Your task to perform on an android device: Do I have any events this weekend? Image 0: 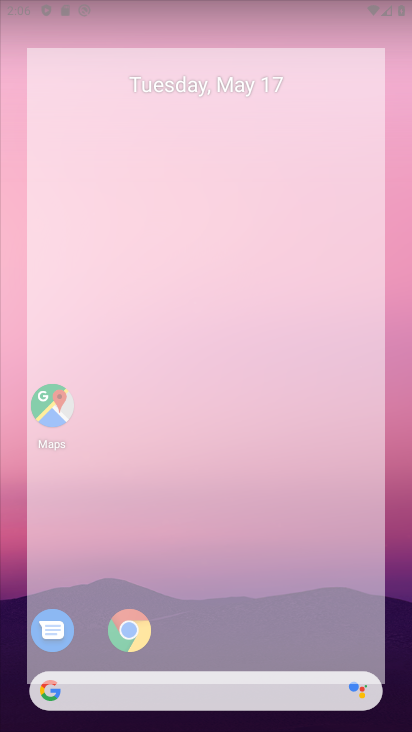
Step 0: drag from (359, 727) to (225, 117)
Your task to perform on an android device: Do I have any events this weekend? Image 1: 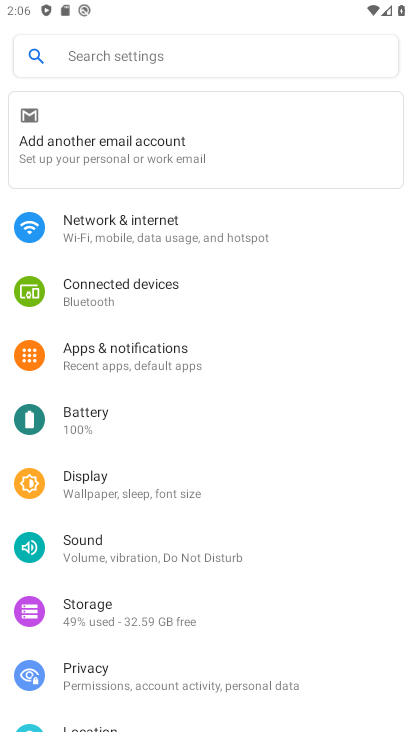
Step 1: press home button
Your task to perform on an android device: Do I have any events this weekend? Image 2: 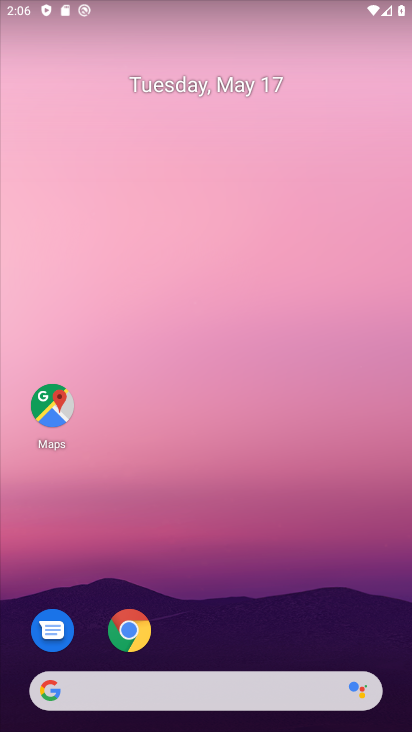
Step 2: drag from (286, 431) to (227, 164)
Your task to perform on an android device: Do I have any events this weekend? Image 3: 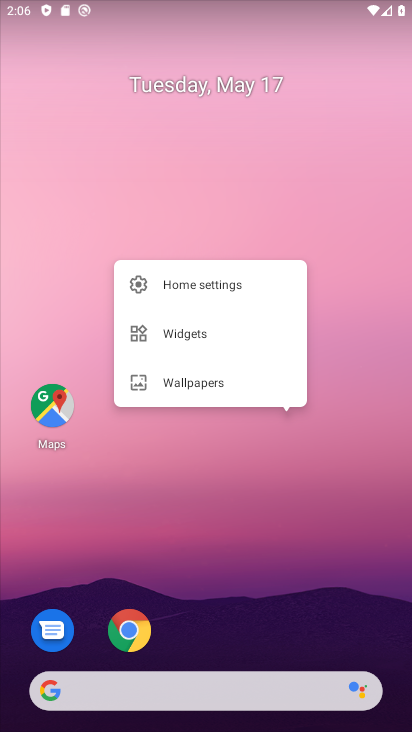
Step 3: drag from (237, 621) to (184, 171)
Your task to perform on an android device: Do I have any events this weekend? Image 4: 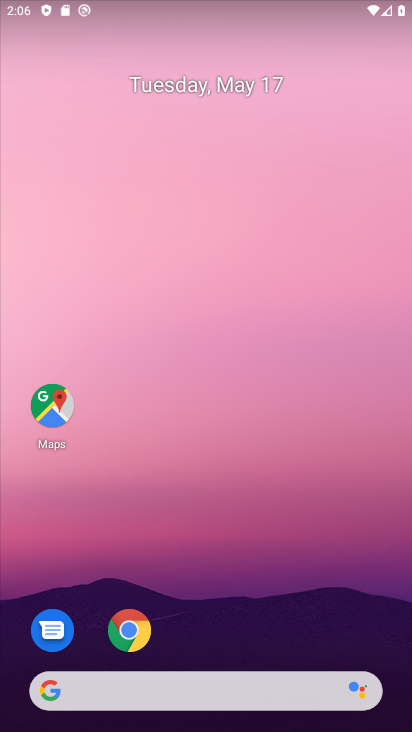
Step 4: drag from (228, 625) to (193, 139)
Your task to perform on an android device: Do I have any events this weekend? Image 5: 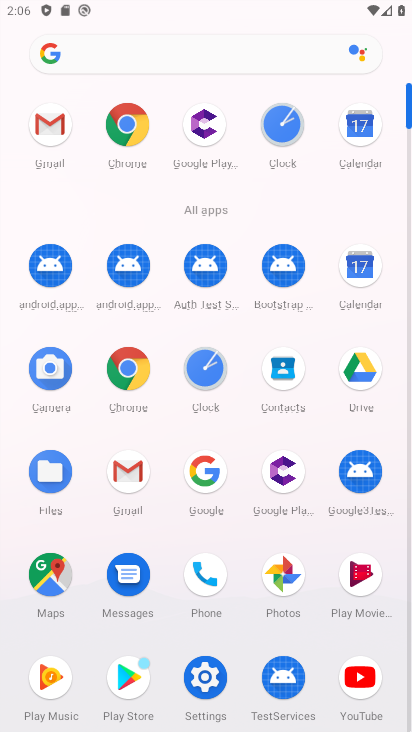
Step 5: drag from (287, 538) to (209, 278)
Your task to perform on an android device: Do I have any events this weekend? Image 6: 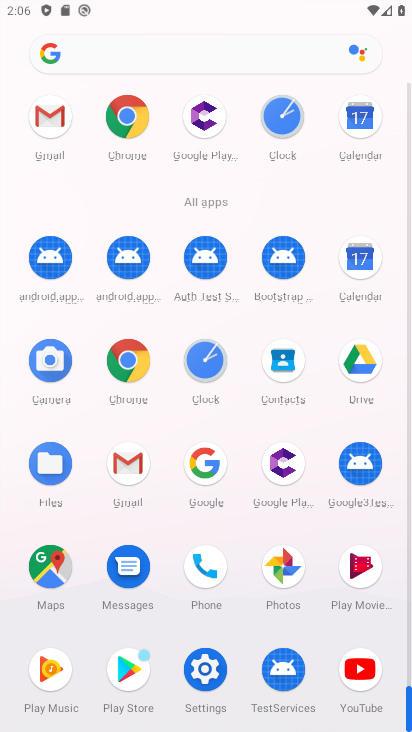
Step 6: click (348, 255)
Your task to perform on an android device: Do I have any events this weekend? Image 7: 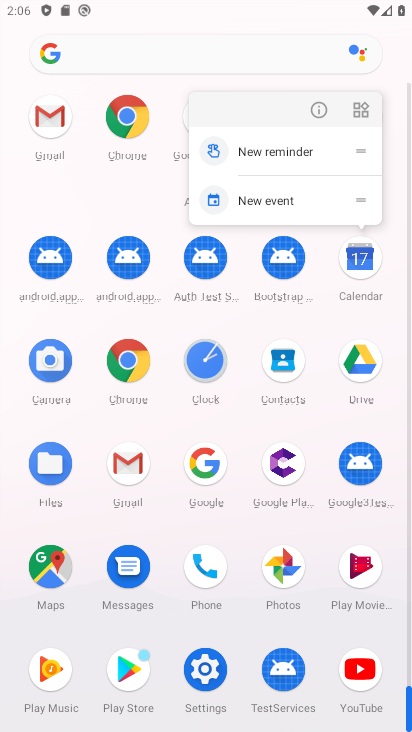
Step 7: click (348, 255)
Your task to perform on an android device: Do I have any events this weekend? Image 8: 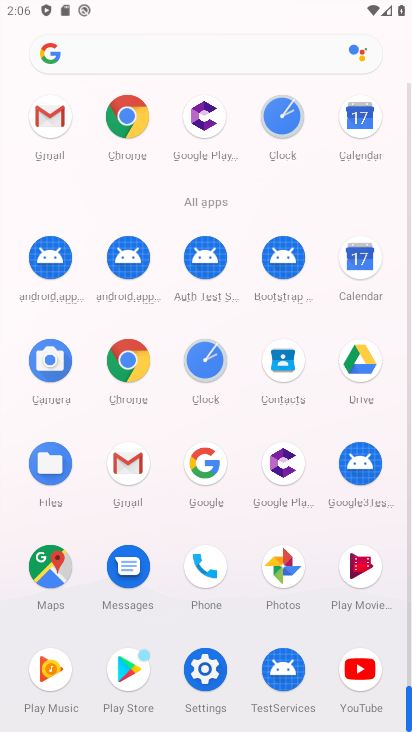
Step 8: click (348, 255)
Your task to perform on an android device: Do I have any events this weekend? Image 9: 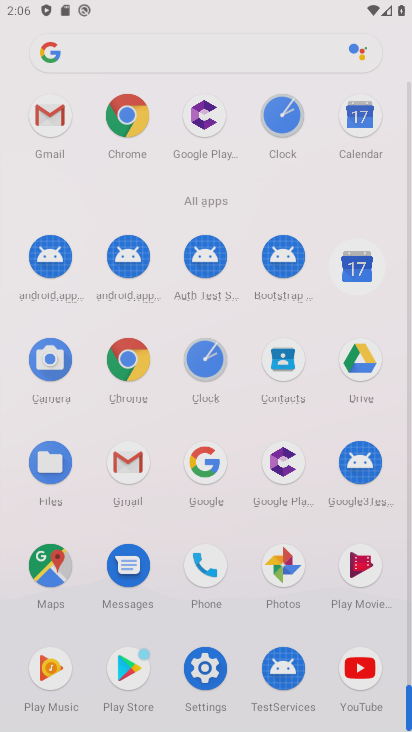
Step 9: click (348, 255)
Your task to perform on an android device: Do I have any events this weekend? Image 10: 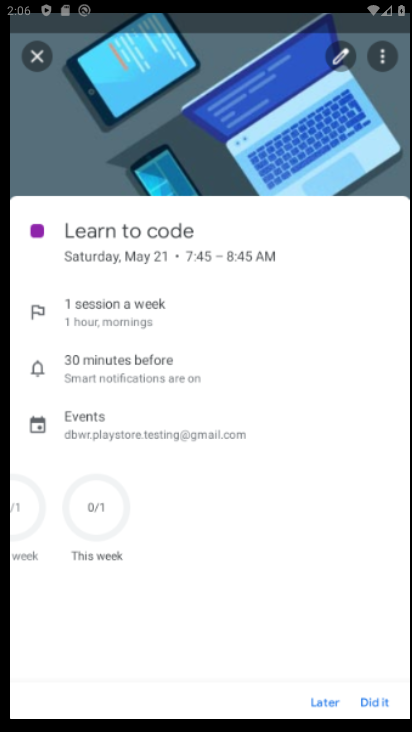
Step 10: click (348, 255)
Your task to perform on an android device: Do I have any events this weekend? Image 11: 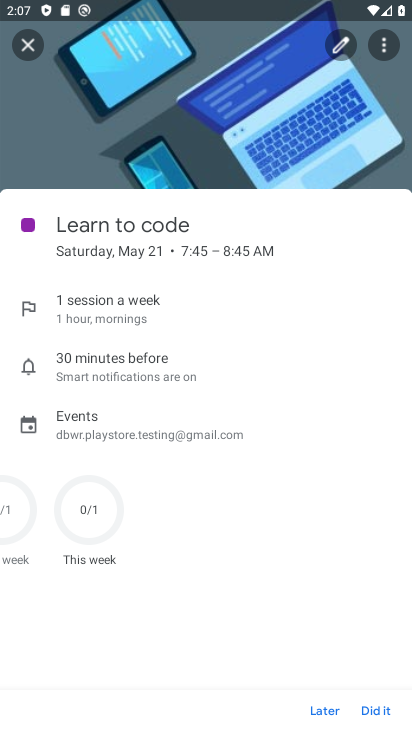
Step 11: click (235, 275)
Your task to perform on an android device: Do I have any events this weekend? Image 12: 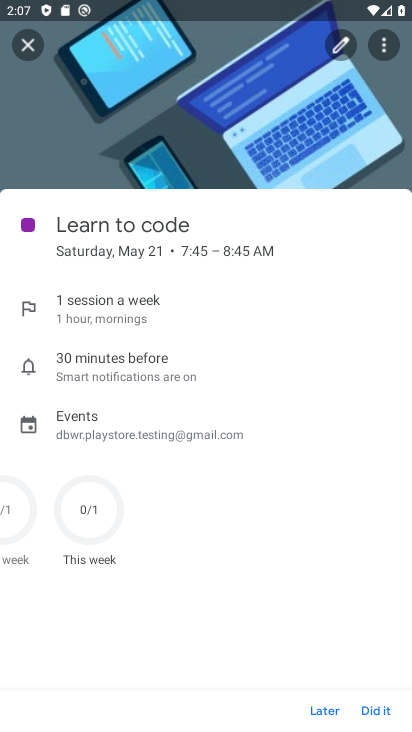
Step 12: click (29, 43)
Your task to perform on an android device: Do I have any events this weekend? Image 13: 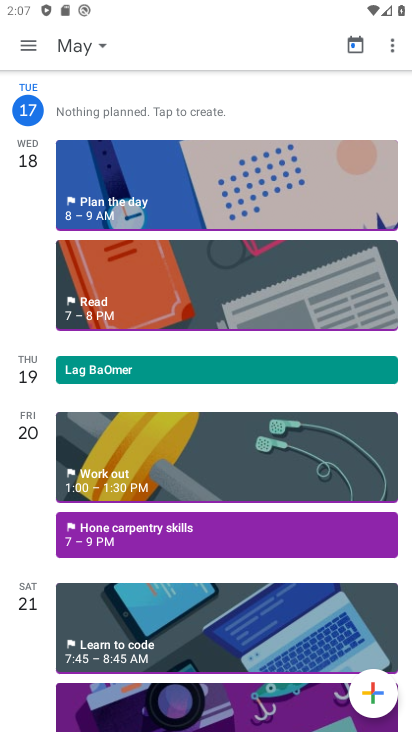
Step 13: task complete